Your task to perform on an android device: turn off data saver in the chrome app Image 0: 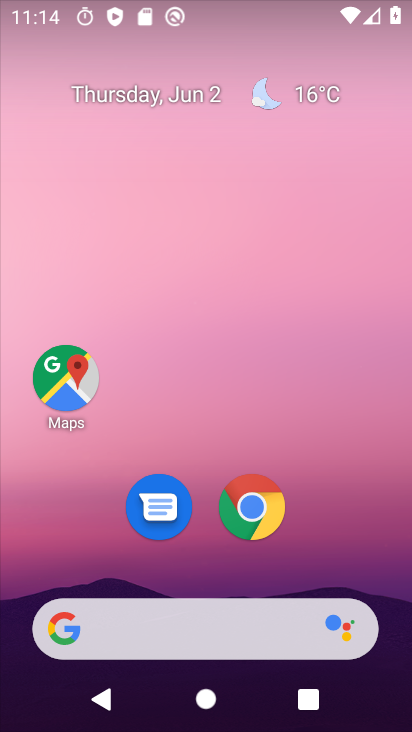
Step 0: drag from (400, 629) to (262, 2)
Your task to perform on an android device: turn off data saver in the chrome app Image 1: 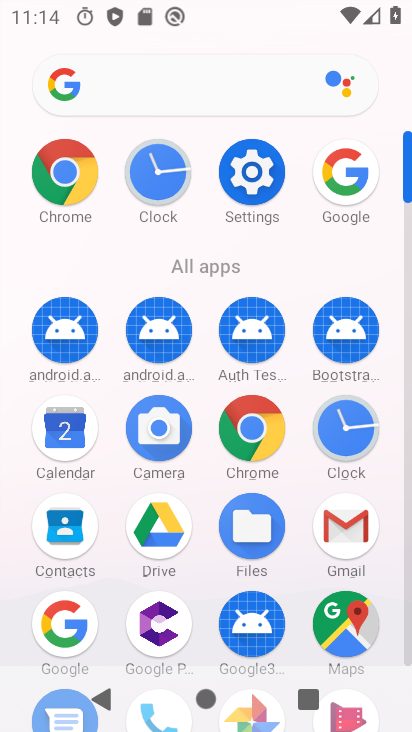
Step 1: click (77, 175)
Your task to perform on an android device: turn off data saver in the chrome app Image 2: 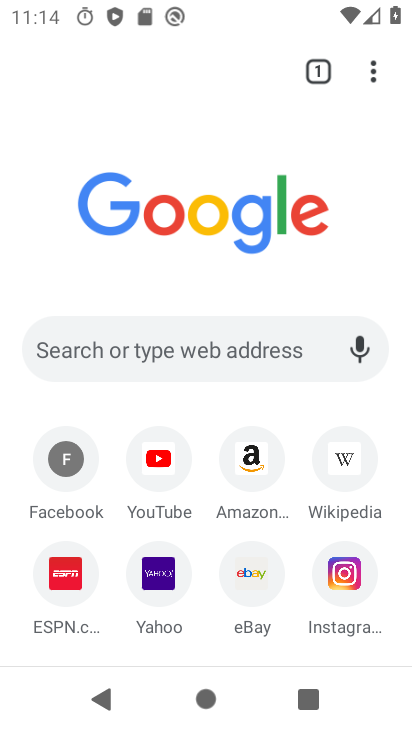
Step 2: click (374, 67)
Your task to perform on an android device: turn off data saver in the chrome app Image 3: 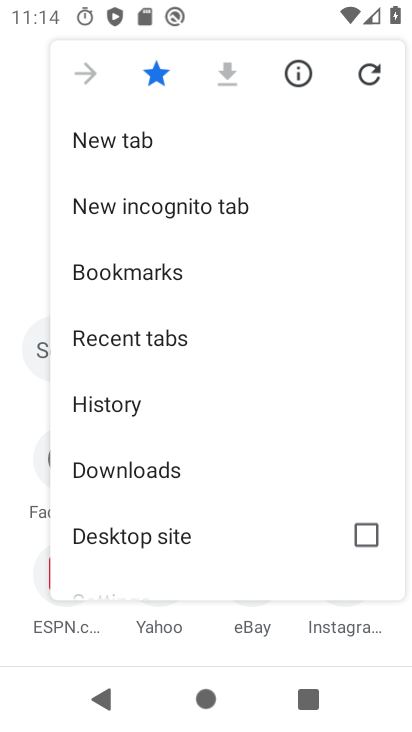
Step 3: drag from (136, 533) to (156, 135)
Your task to perform on an android device: turn off data saver in the chrome app Image 4: 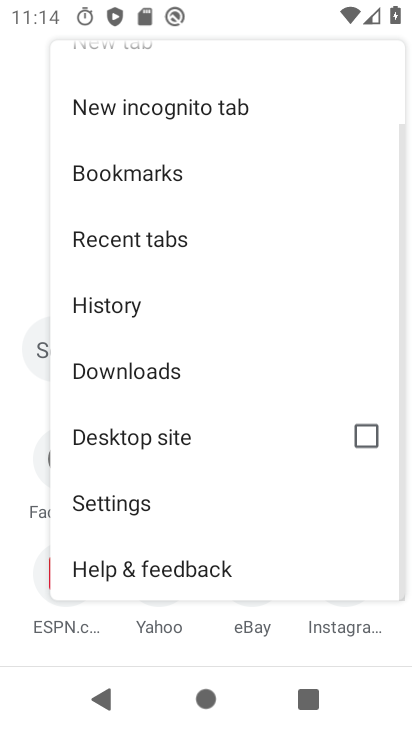
Step 4: click (152, 511)
Your task to perform on an android device: turn off data saver in the chrome app Image 5: 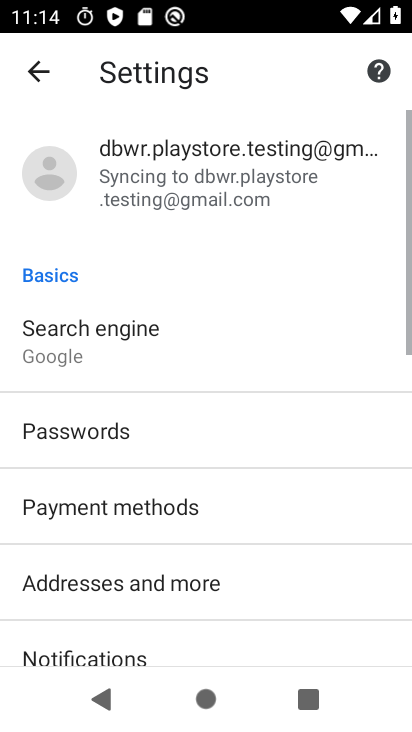
Step 5: drag from (152, 627) to (165, 178)
Your task to perform on an android device: turn off data saver in the chrome app Image 6: 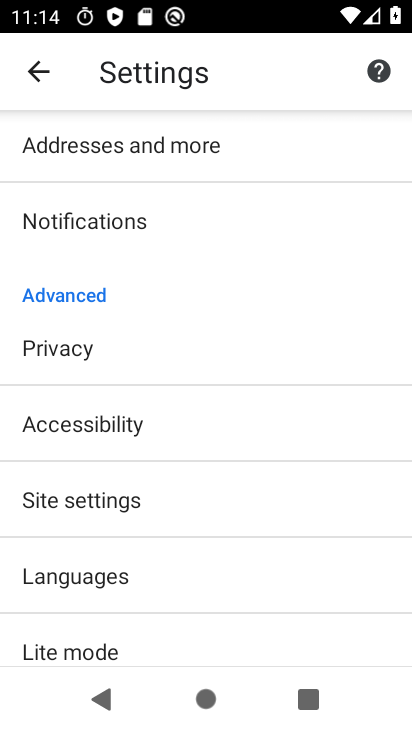
Step 6: drag from (143, 589) to (174, 320)
Your task to perform on an android device: turn off data saver in the chrome app Image 7: 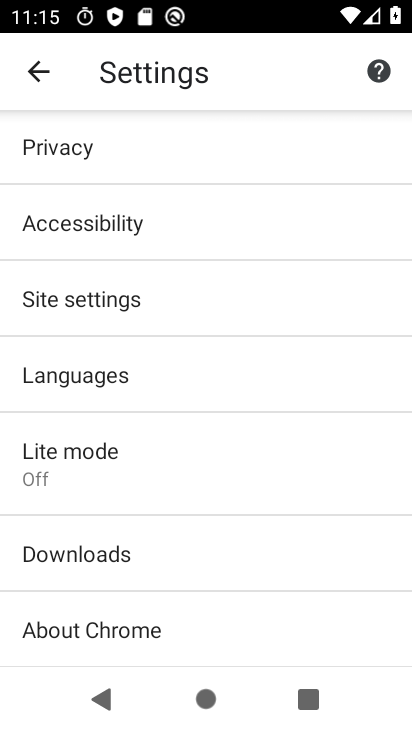
Step 7: click (120, 488)
Your task to perform on an android device: turn off data saver in the chrome app Image 8: 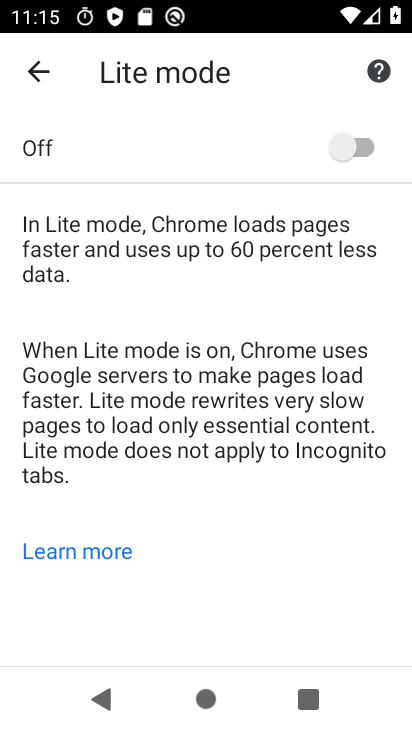
Step 8: task complete